Your task to perform on an android device: star an email in the gmail app Image 0: 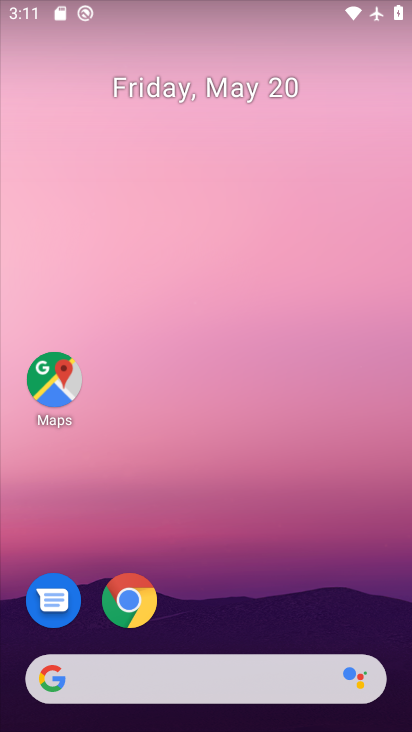
Step 0: drag from (313, 454) to (171, 48)
Your task to perform on an android device: star an email in the gmail app Image 1: 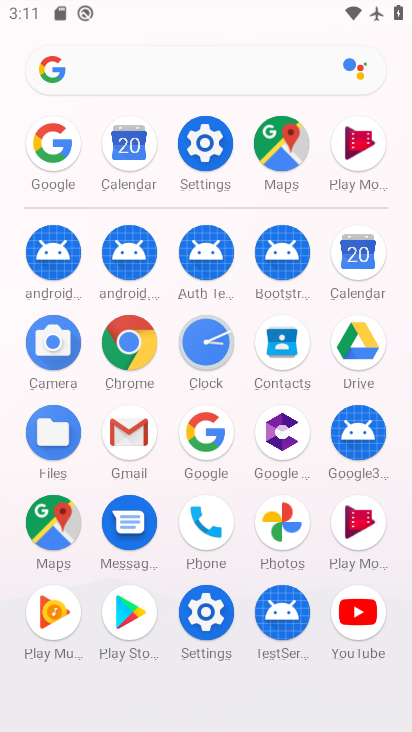
Step 1: click (127, 441)
Your task to perform on an android device: star an email in the gmail app Image 2: 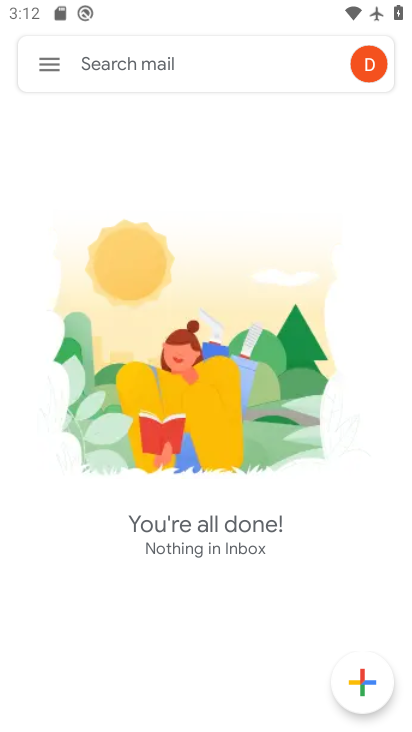
Step 2: click (51, 58)
Your task to perform on an android device: star an email in the gmail app Image 3: 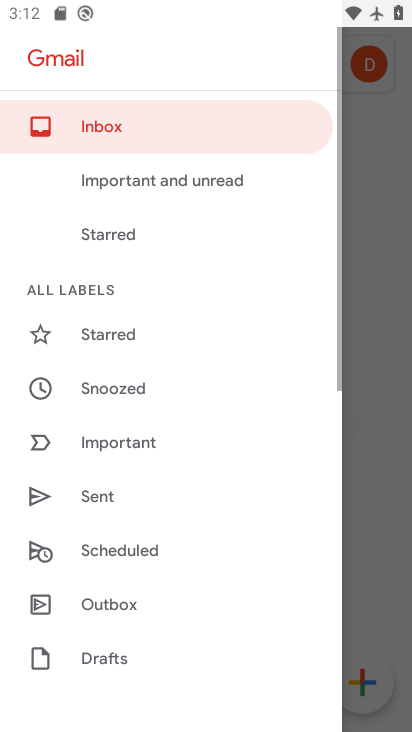
Step 3: drag from (169, 506) to (159, 265)
Your task to perform on an android device: star an email in the gmail app Image 4: 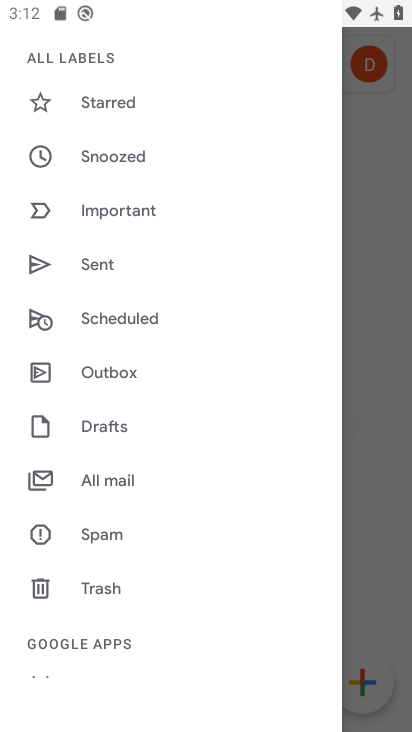
Step 4: click (134, 480)
Your task to perform on an android device: star an email in the gmail app Image 5: 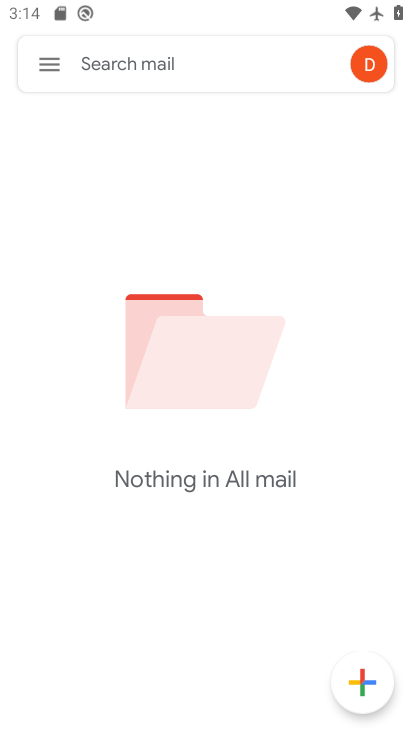
Step 5: task complete